Your task to perform on an android device: turn on showing notifications on the lock screen Image 0: 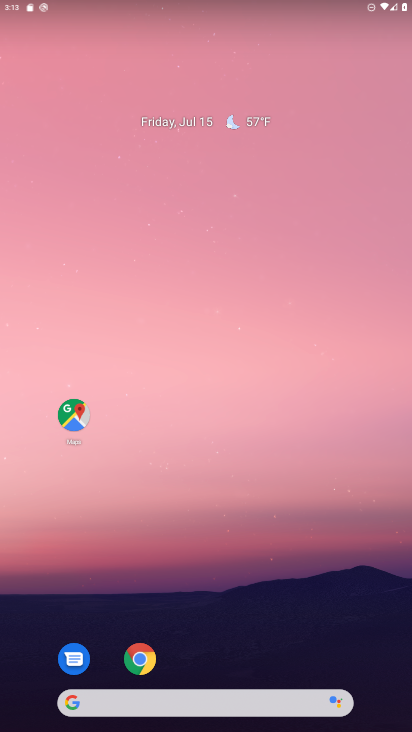
Step 0: drag from (202, 641) to (207, 132)
Your task to perform on an android device: turn on showing notifications on the lock screen Image 1: 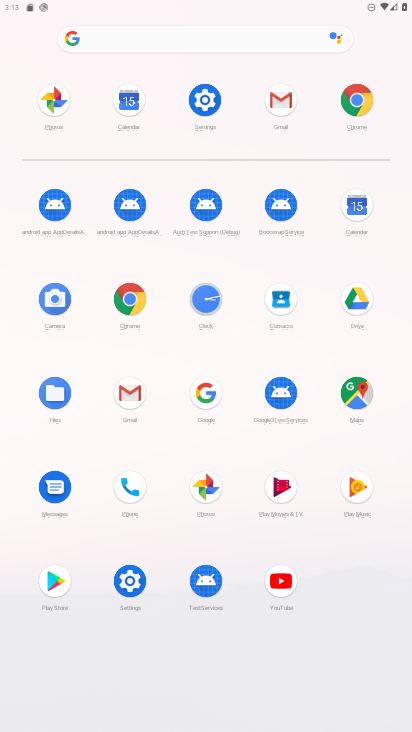
Step 1: click (131, 589)
Your task to perform on an android device: turn on showing notifications on the lock screen Image 2: 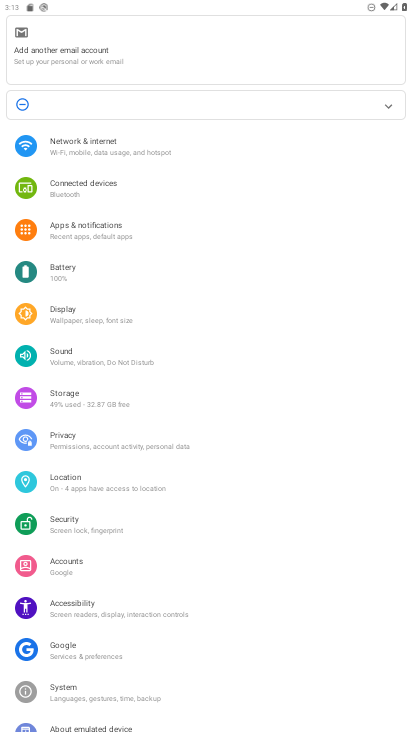
Step 2: click (111, 235)
Your task to perform on an android device: turn on showing notifications on the lock screen Image 3: 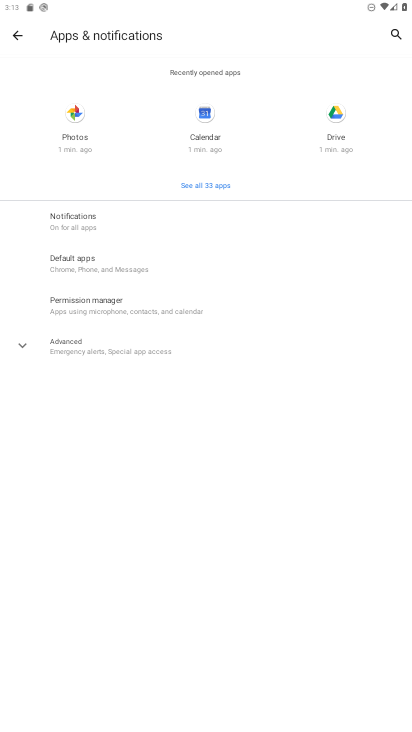
Step 3: click (82, 224)
Your task to perform on an android device: turn on showing notifications on the lock screen Image 4: 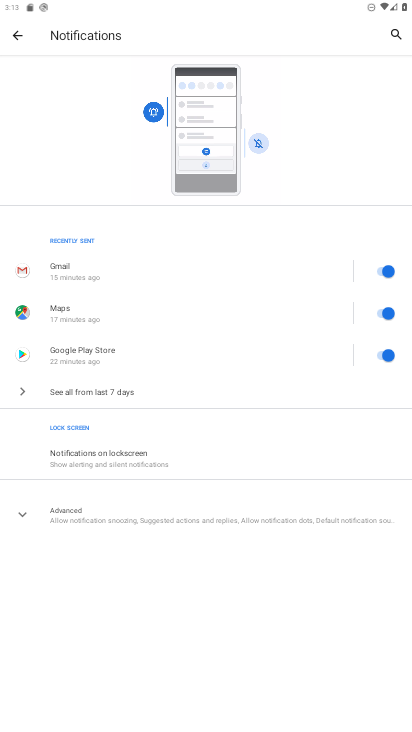
Step 4: click (97, 519)
Your task to perform on an android device: turn on showing notifications on the lock screen Image 5: 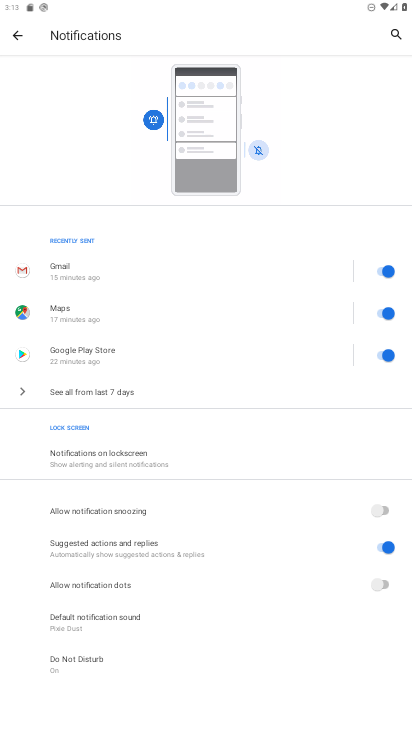
Step 5: click (125, 461)
Your task to perform on an android device: turn on showing notifications on the lock screen Image 6: 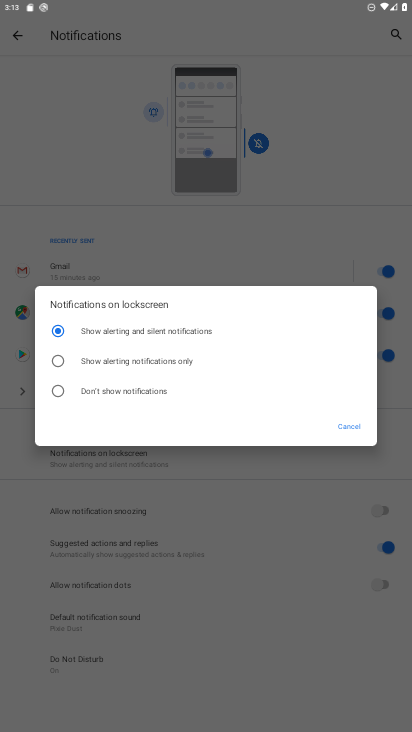
Step 6: task complete